Your task to perform on an android device: change keyboard looks Image 0: 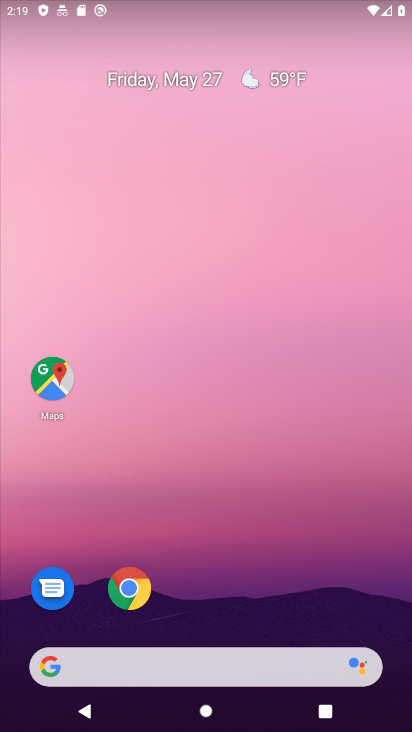
Step 0: drag from (234, 394) to (183, 222)
Your task to perform on an android device: change keyboard looks Image 1: 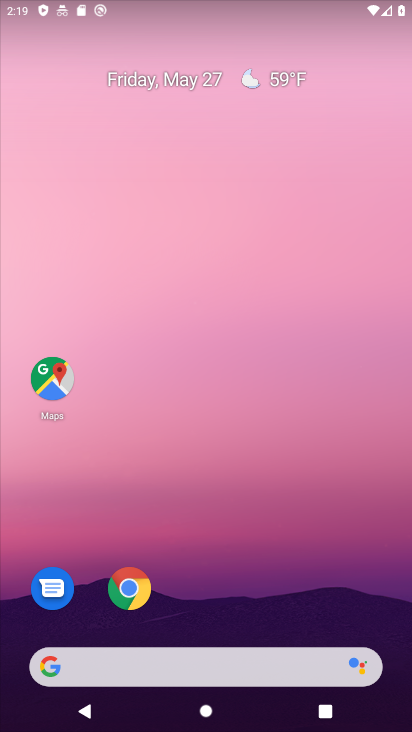
Step 1: drag from (301, 626) to (175, 144)
Your task to perform on an android device: change keyboard looks Image 2: 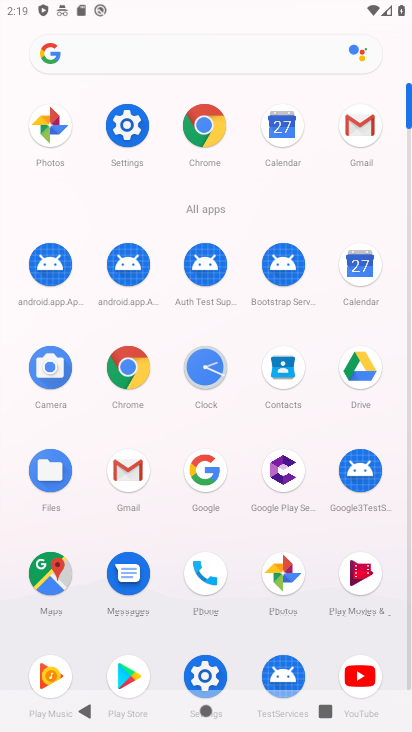
Step 2: drag from (270, 633) to (179, 140)
Your task to perform on an android device: change keyboard looks Image 3: 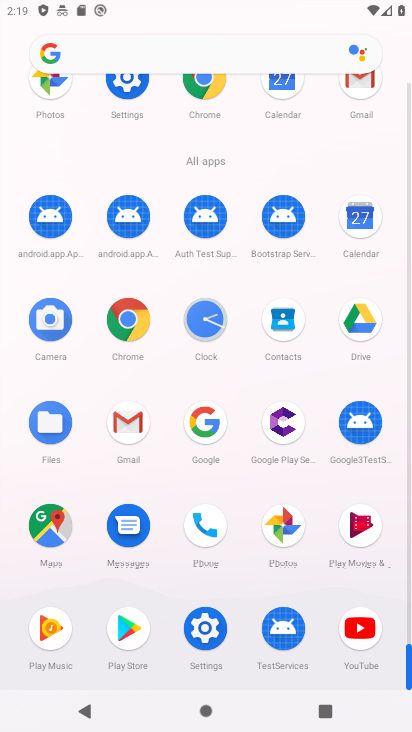
Step 3: click (210, 628)
Your task to perform on an android device: change keyboard looks Image 4: 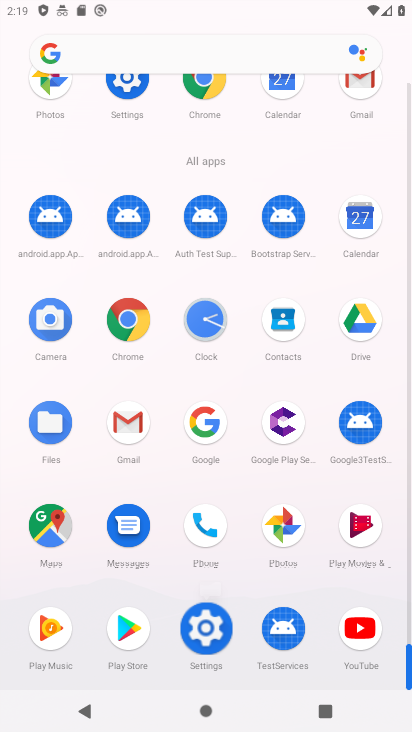
Step 4: click (210, 628)
Your task to perform on an android device: change keyboard looks Image 5: 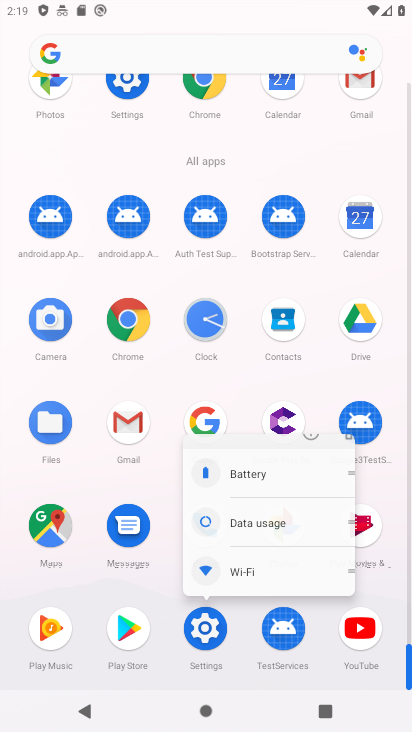
Step 5: click (210, 628)
Your task to perform on an android device: change keyboard looks Image 6: 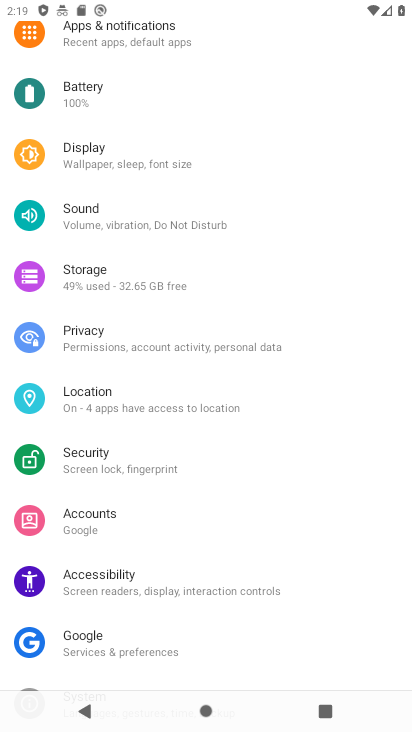
Step 6: click (209, 627)
Your task to perform on an android device: change keyboard looks Image 7: 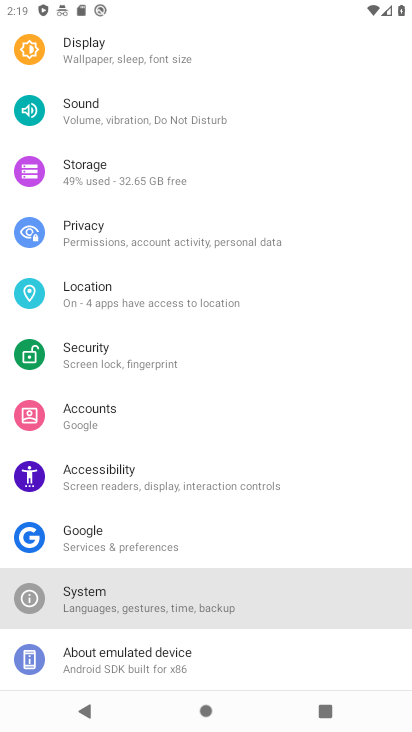
Step 7: click (208, 627)
Your task to perform on an android device: change keyboard looks Image 8: 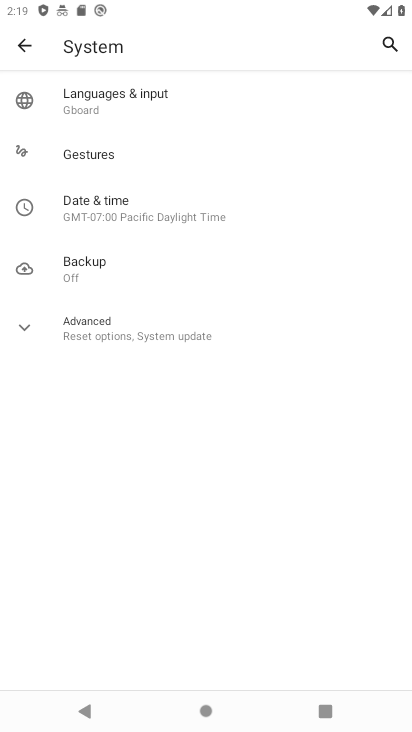
Step 8: click (16, 44)
Your task to perform on an android device: change keyboard looks Image 9: 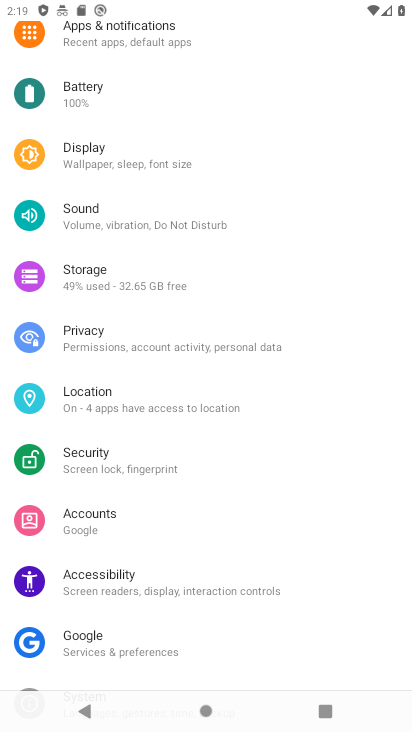
Step 9: drag from (149, 477) to (124, 211)
Your task to perform on an android device: change keyboard looks Image 10: 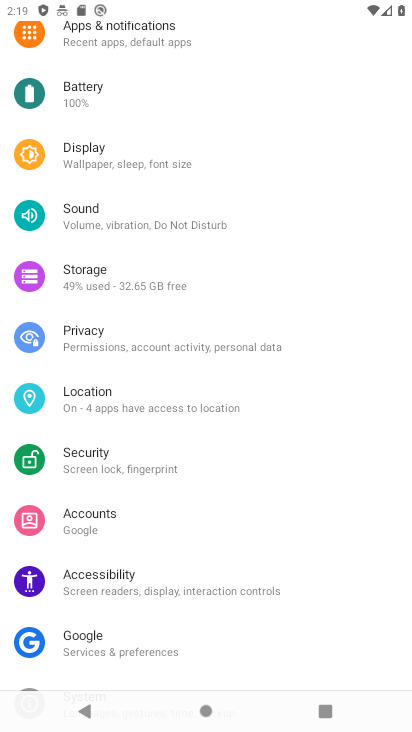
Step 10: click (131, 192)
Your task to perform on an android device: change keyboard looks Image 11: 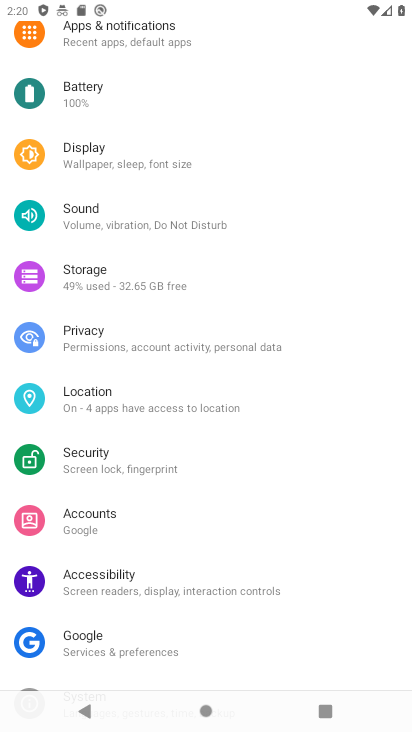
Step 11: drag from (100, 568) to (114, 251)
Your task to perform on an android device: change keyboard looks Image 12: 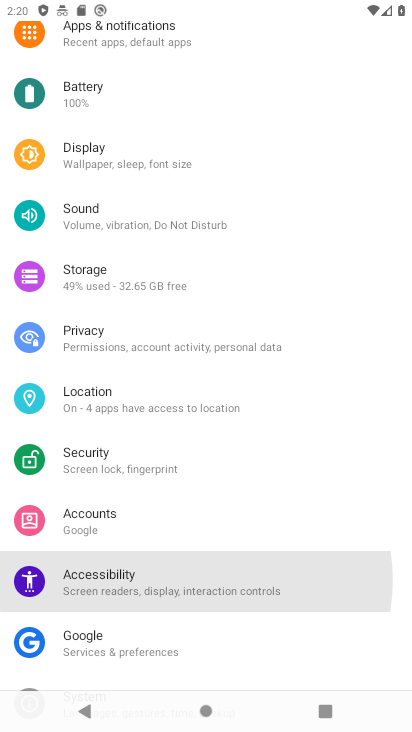
Step 12: drag from (114, 436) to (121, 263)
Your task to perform on an android device: change keyboard looks Image 13: 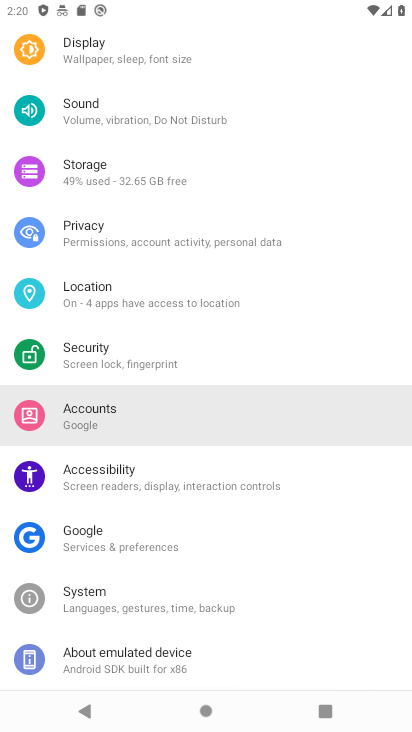
Step 13: drag from (141, 505) to (126, 191)
Your task to perform on an android device: change keyboard looks Image 14: 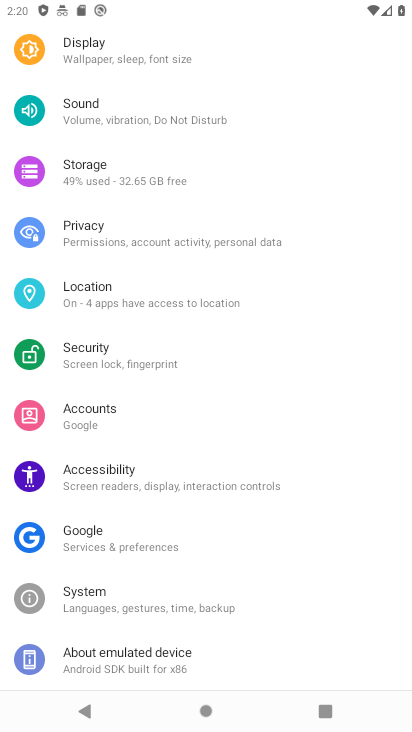
Step 14: click (93, 598)
Your task to perform on an android device: change keyboard looks Image 15: 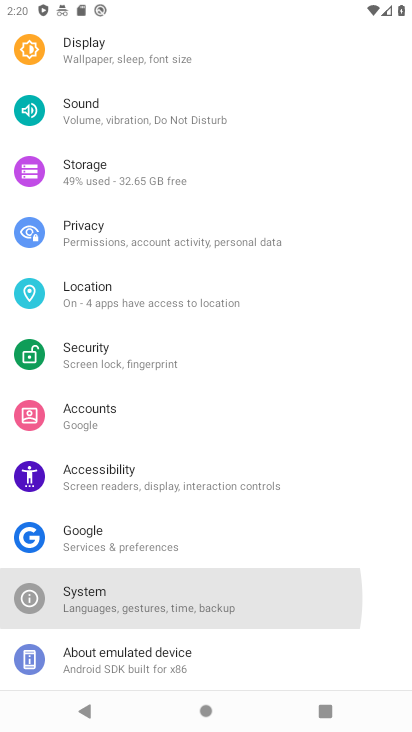
Step 15: click (93, 598)
Your task to perform on an android device: change keyboard looks Image 16: 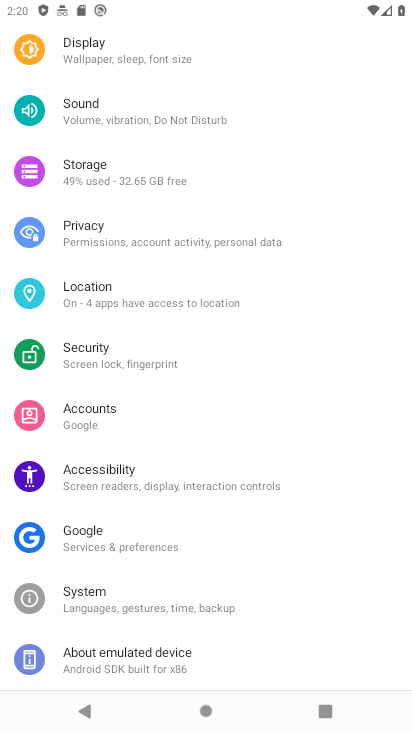
Step 16: click (93, 598)
Your task to perform on an android device: change keyboard looks Image 17: 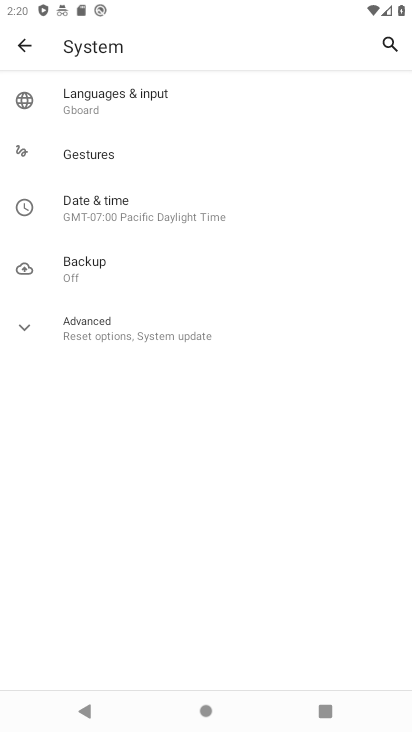
Step 17: click (74, 106)
Your task to perform on an android device: change keyboard looks Image 18: 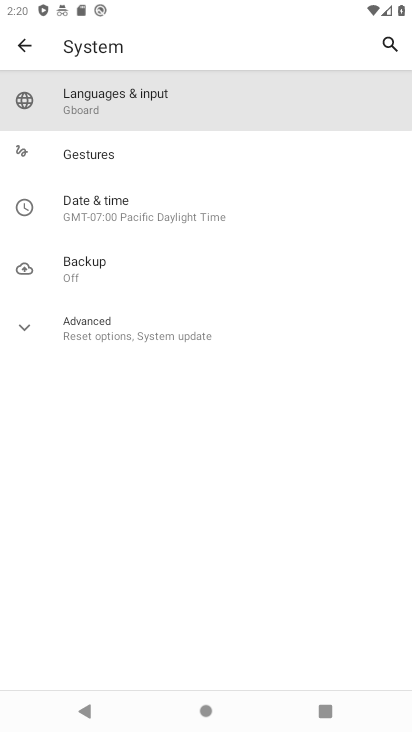
Step 18: click (75, 103)
Your task to perform on an android device: change keyboard looks Image 19: 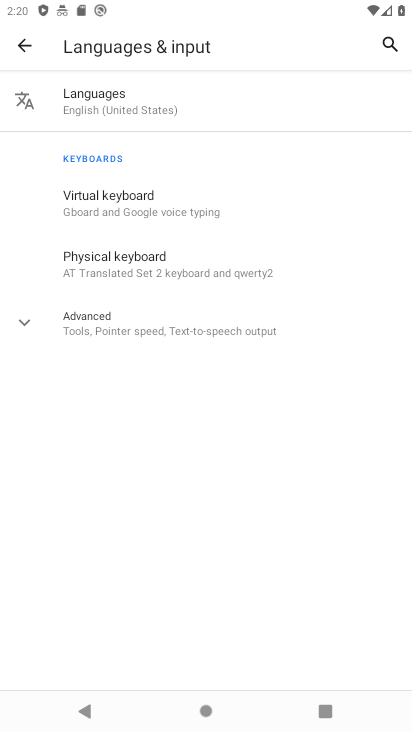
Step 19: click (100, 203)
Your task to perform on an android device: change keyboard looks Image 20: 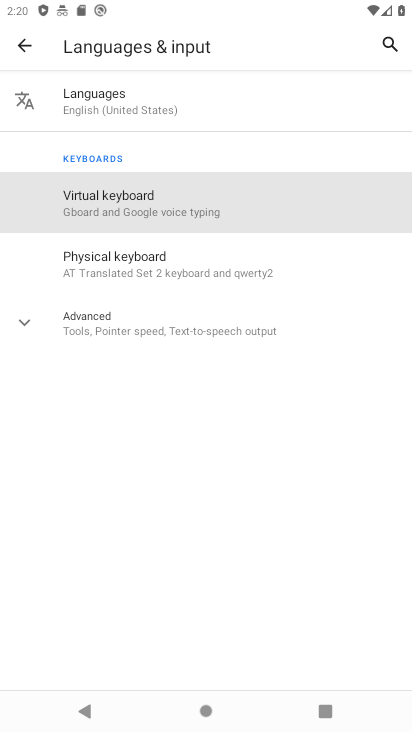
Step 20: click (100, 203)
Your task to perform on an android device: change keyboard looks Image 21: 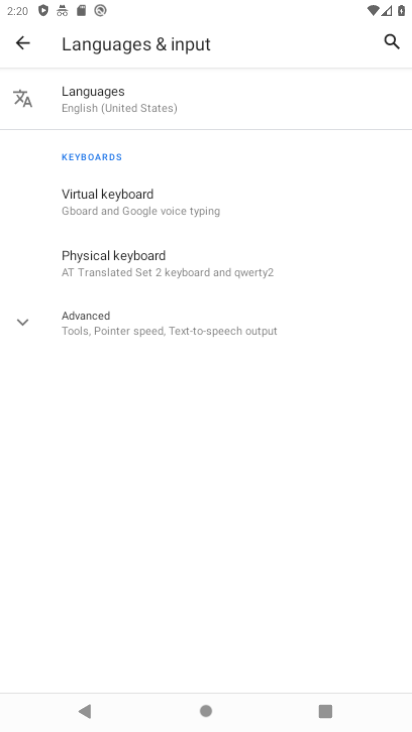
Step 21: click (101, 202)
Your task to perform on an android device: change keyboard looks Image 22: 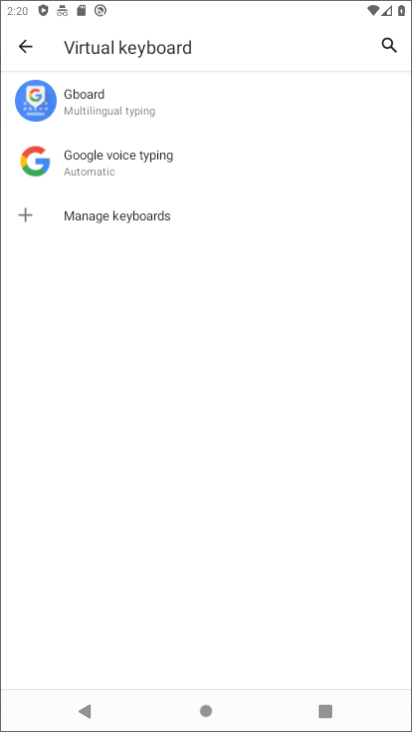
Step 22: click (101, 202)
Your task to perform on an android device: change keyboard looks Image 23: 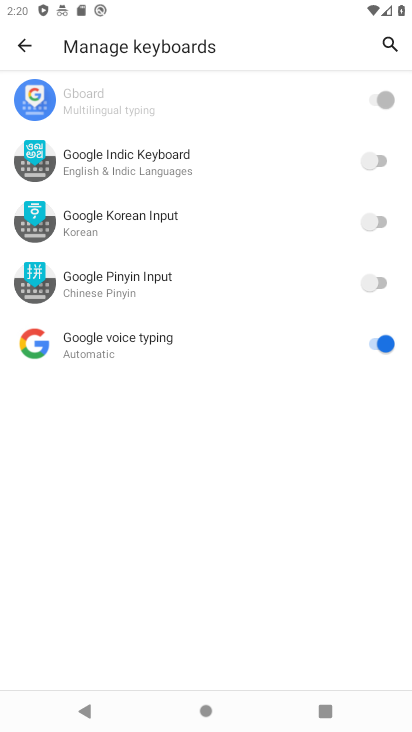
Step 23: click (390, 94)
Your task to perform on an android device: change keyboard looks Image 24: 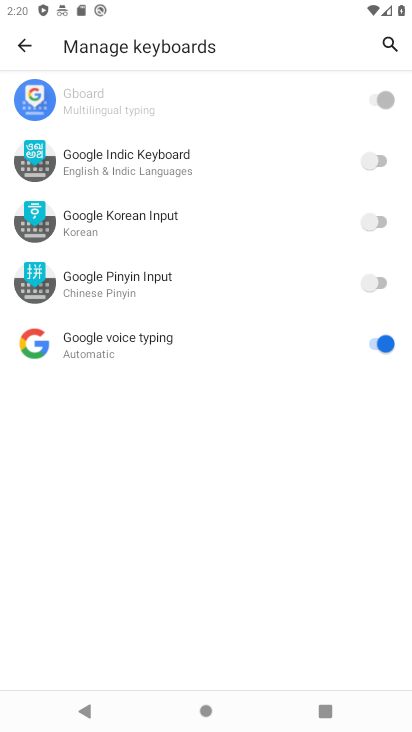
Step 24: click (58, 95)
Your task to perform on an android device: change keyboard looks Image 25: 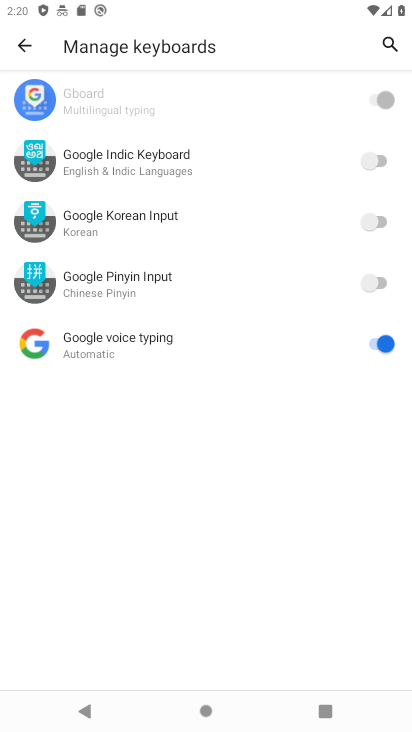
Step 25: click (62, 99)
Your task to perform on an android device: change keyboard looks Image 26: 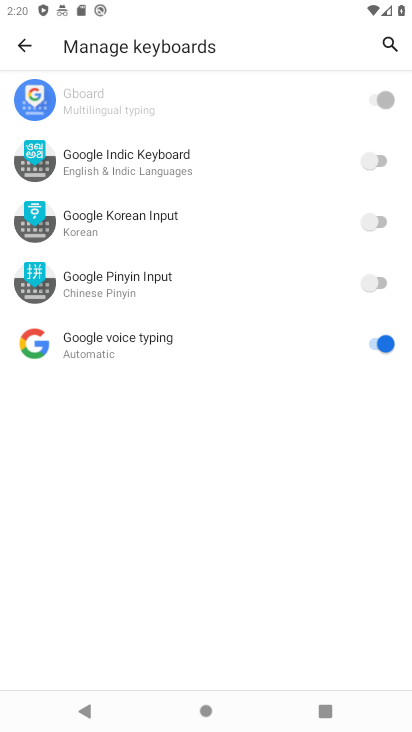
Step 26: click (62, 99)
Your task to perform on an android device: change keyboard looks Image 27: 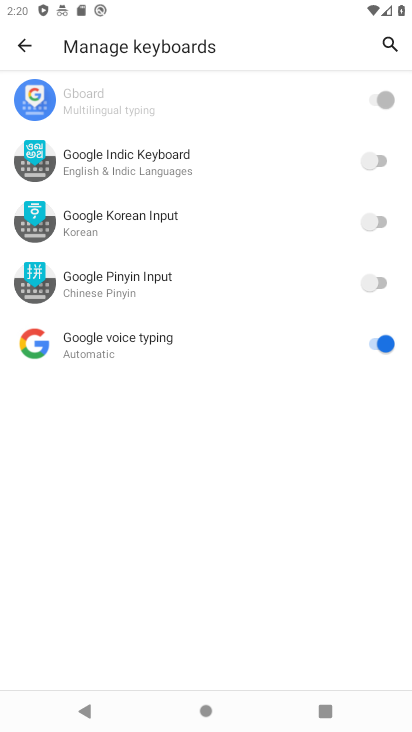
Step 27: click (75, 99)
Your task to perform on an android device: change keyboard looks Image 28: 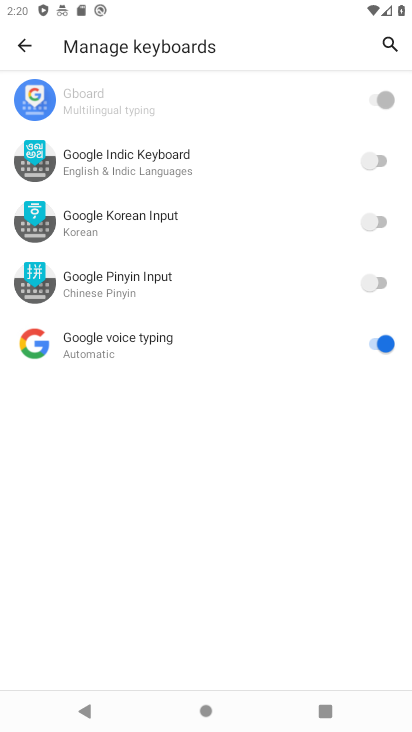
Step 28: click (24, 42)
Your task to perform on an android device: change keyboard looks Image 29: 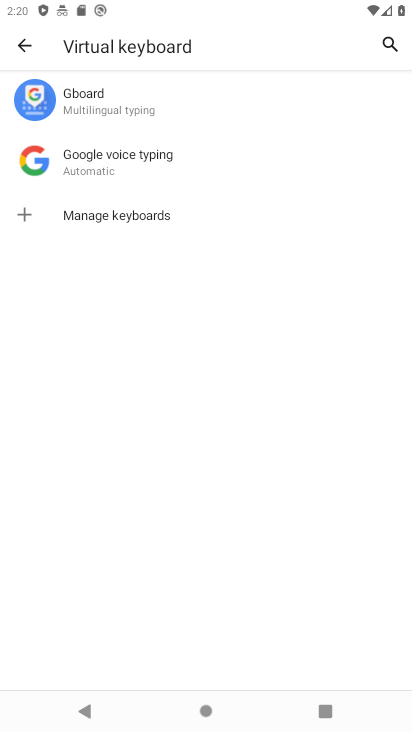
Step 29: click (78, 99)
Your task to perform on an android device: change keyboard looks Image 30: 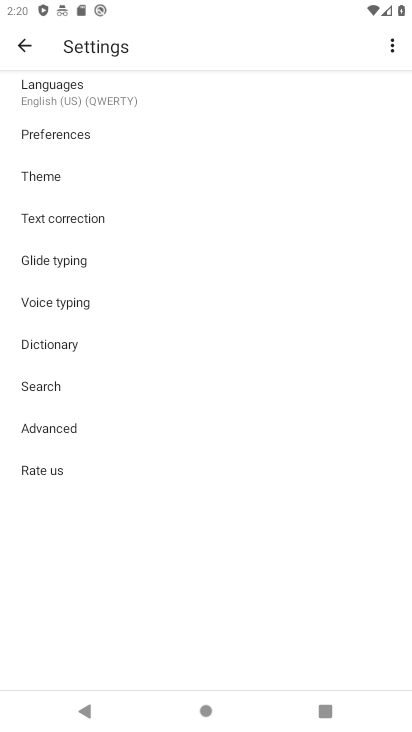
Step 30: click (29, 177)
Your task to perform on an android device: change keyboard looks Image 31: 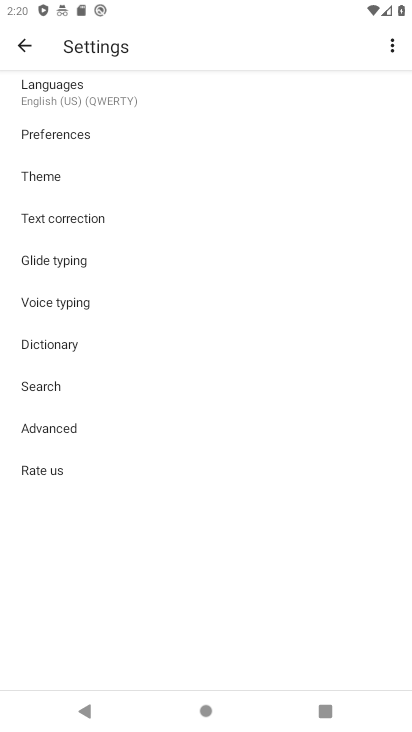
Step 31: click (29, 177)
Your task to perform on an android device: change keyboard looks Image 32: 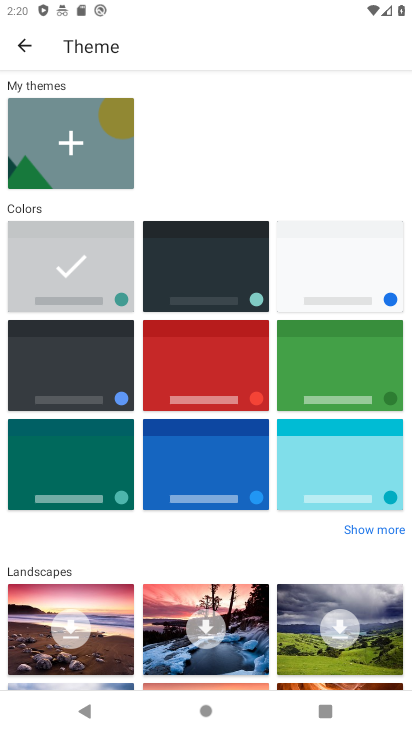
Step 32: click (180, 466)
Your task to perform on an android device: change keyboard looks Image 33: 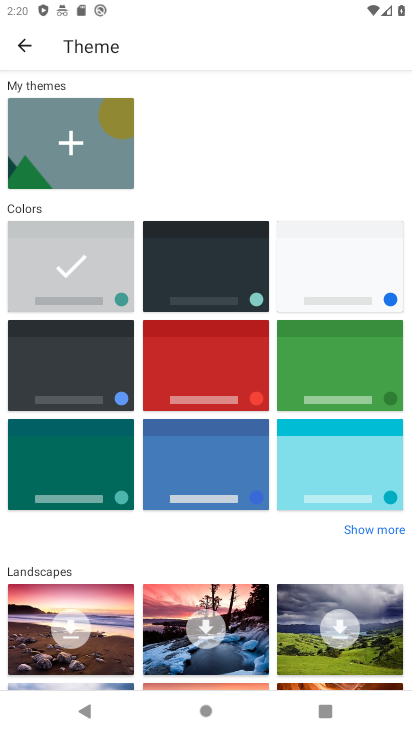
Step 33: click (180, 466)
Your task to perform on an android device: change keyboard looks Image 34: 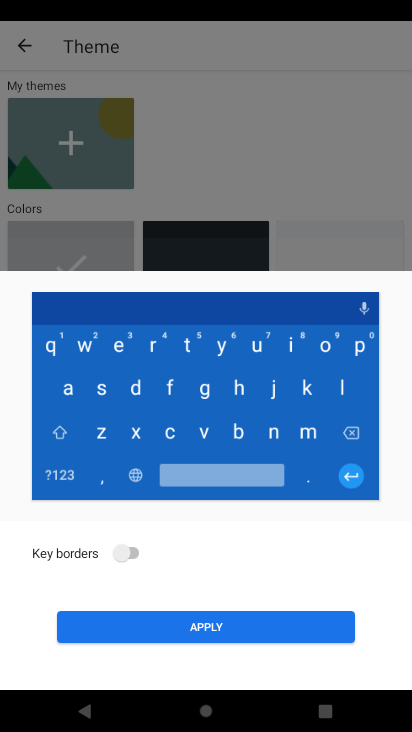
Step 34: click (187, 487)
Your task to perform on an android device: change keyboard looks Image 35: 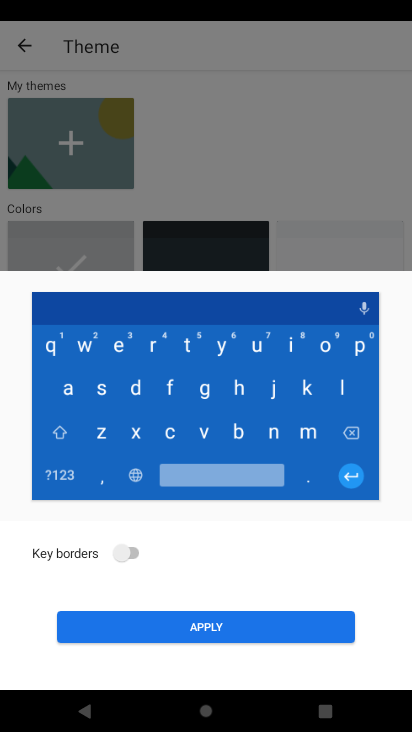
Step 35: click (207, 617)
Your task to perform on an android device: change keyboard looks Image 36: 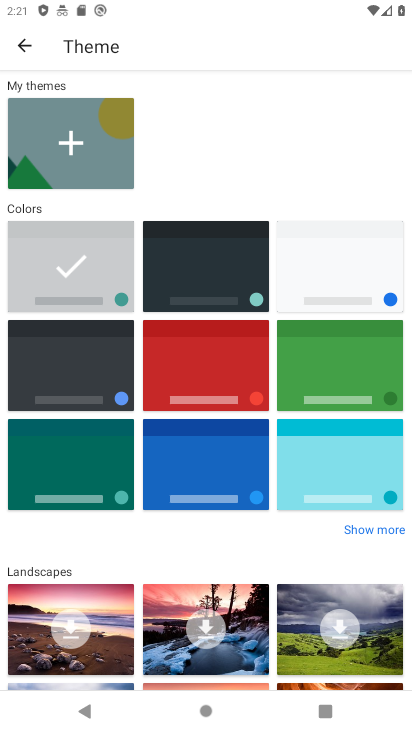
Step 36: click (206, 618)
Your task to perform on an android device: change keyboard looks Image 37: 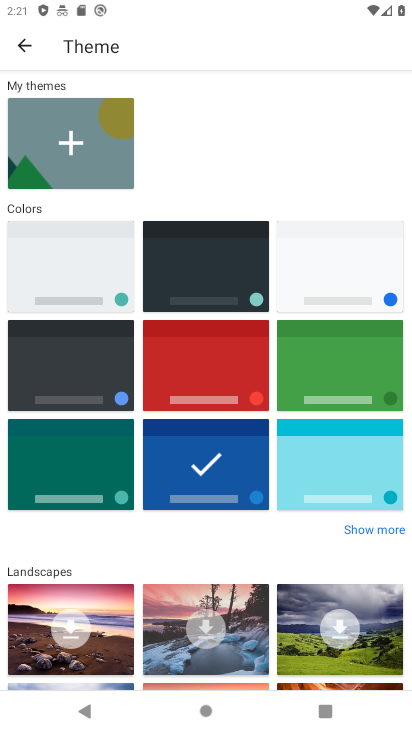
Step 37: click (206, 618)
Your task to perform on an android device: change keyboard looks Image 38: 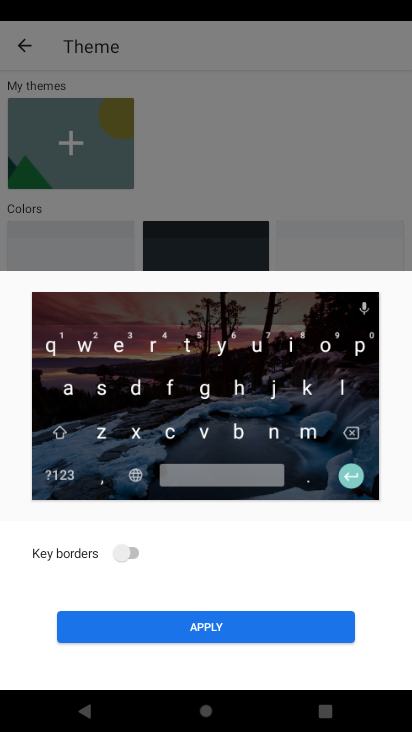
Step 38: click (216, 621)
Your task to perform on an android device: change keyboard looks Image 39: 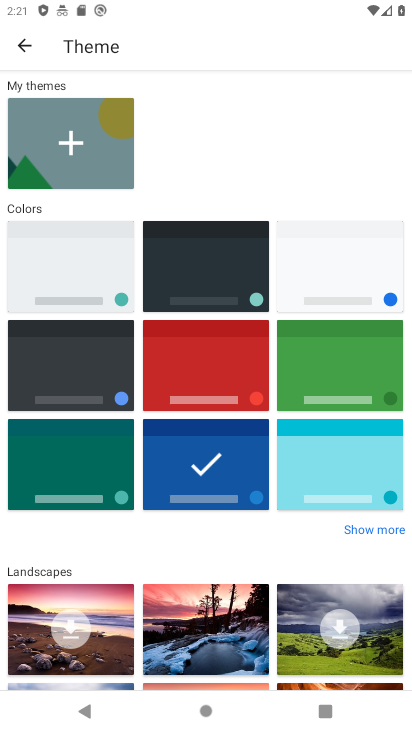
Step 39: click (218, 630)
Your task to perform on an android device: change keyboard looks Image 40: 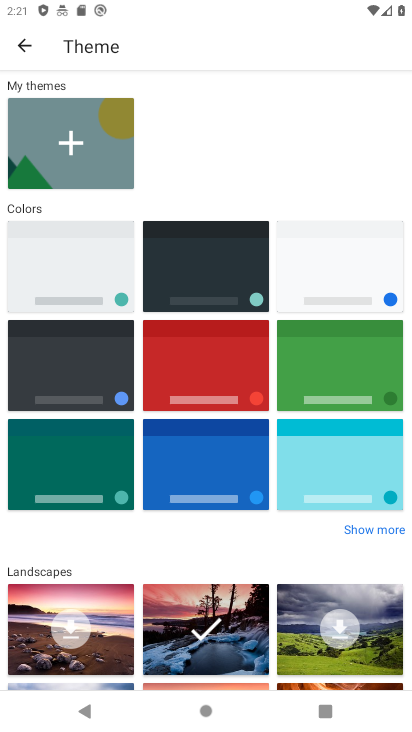
Step 40: click (218, 630)
Your task to perform on an android device: change keyboard looks Image 41: 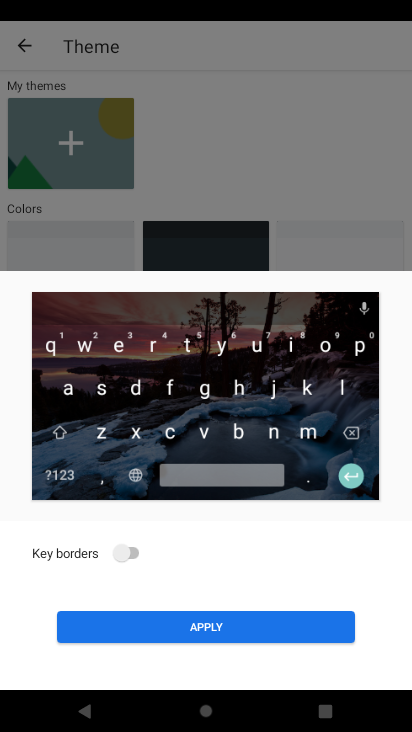
Step 41: task complete